Your task to perform on an android device: remove spam from my inbox in the gmail app Image 0: 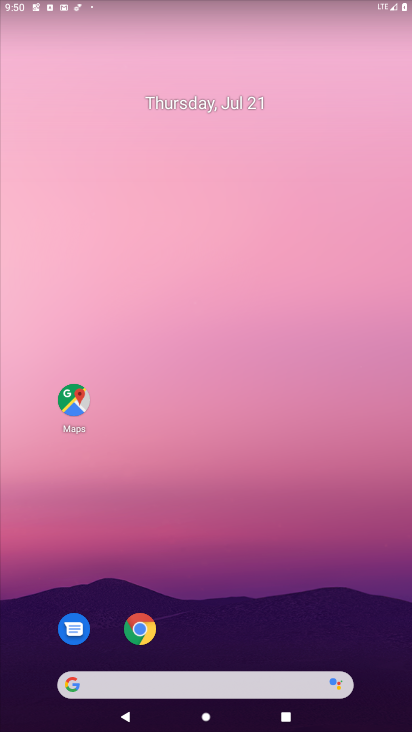
Step 0: drag from (217, 612) to (220, 6)
Your task to perform on an android device: remove spam from my inbox in the gmail app Image 1: 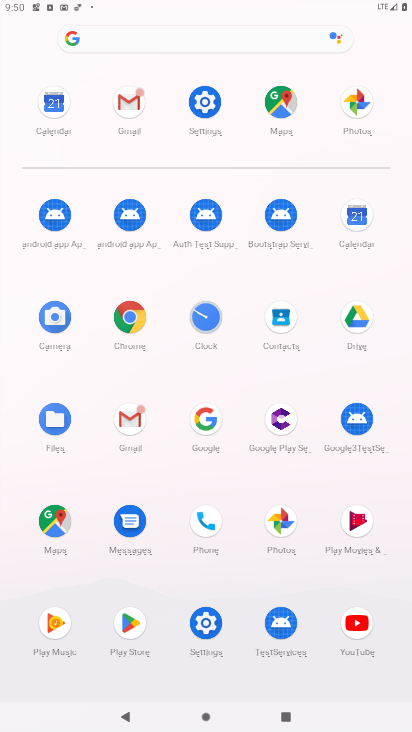
Step 1: click (129, 423)
Your task to perform on an android device: remove spam from my inbox in the gmail app Image 2: 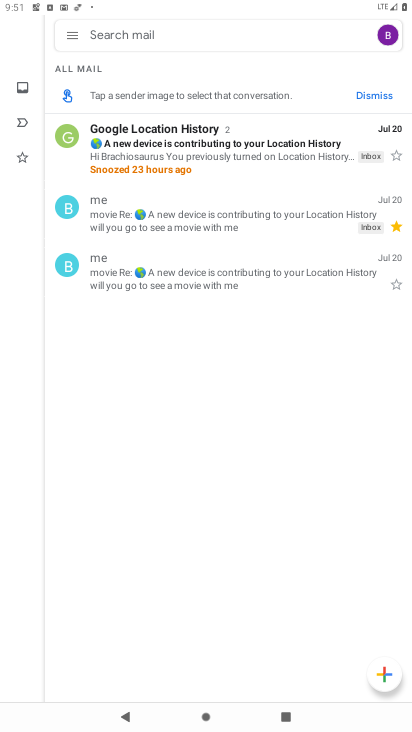
Step 2: click (66, 43)
Your task to perform on an android device: remove spam from my inbox in the gmail app Image 3: 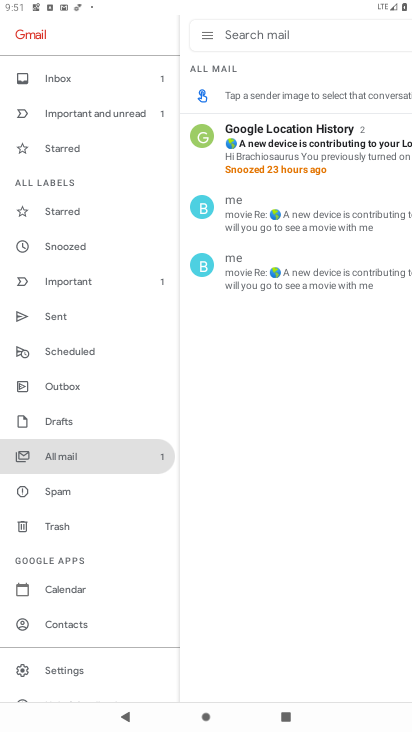
Step 3: click (87, 502)
Your task to perform on an android device: remove spam from my inbox in the gmail app Image 4: 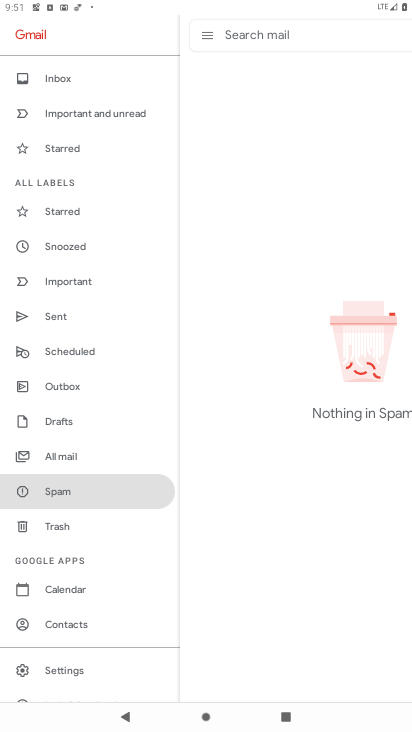
Step 4: click (202, 42)
Your task to perform on an android device: remove spam from my inbox in the gmail app Image 5: 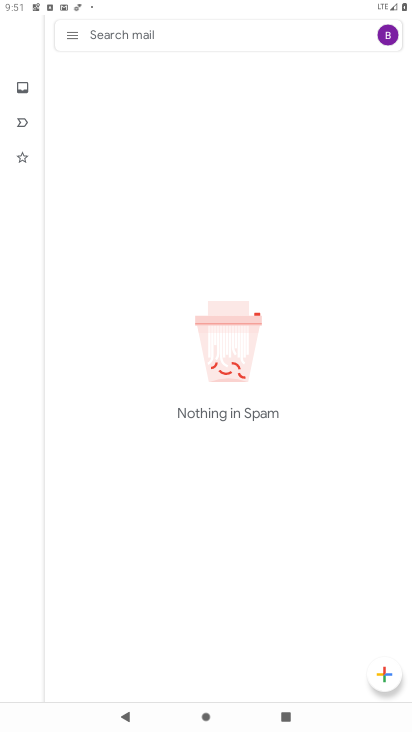
Step 5: task complete